Your task to perform on an android device: open chrome and create a bookmark for the current page Image 0: 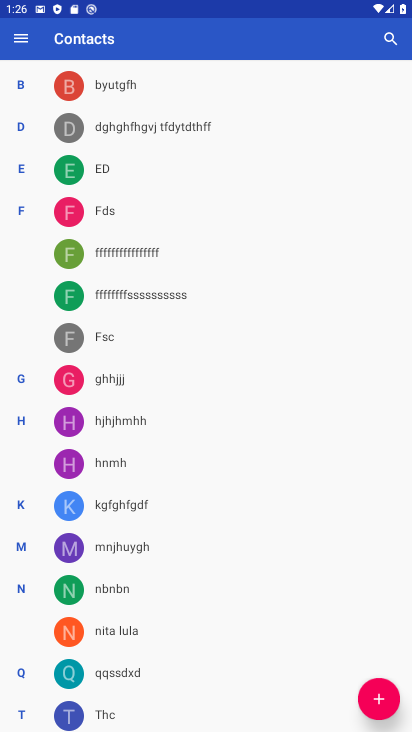
Step 0: press home button
Your task to perform on an android device: open chrome and create a bookmark for the current page Image 1: 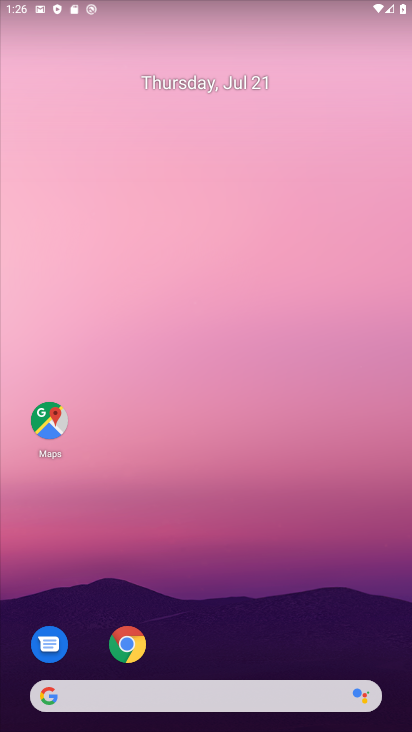
Step 1: click (120, 643)
Your task to perform on an android device: open chrome and create a bookmark for the current page Image 2: 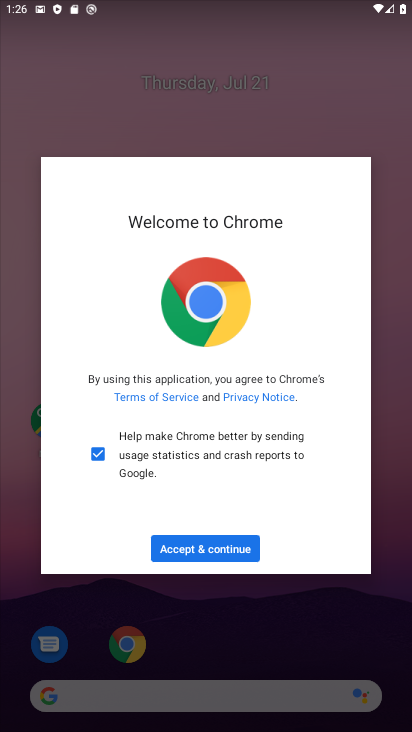
Step 2: click (190, 545)
Your task to perform on an android device: open chrome and create a bookmark for the current page Image 3: 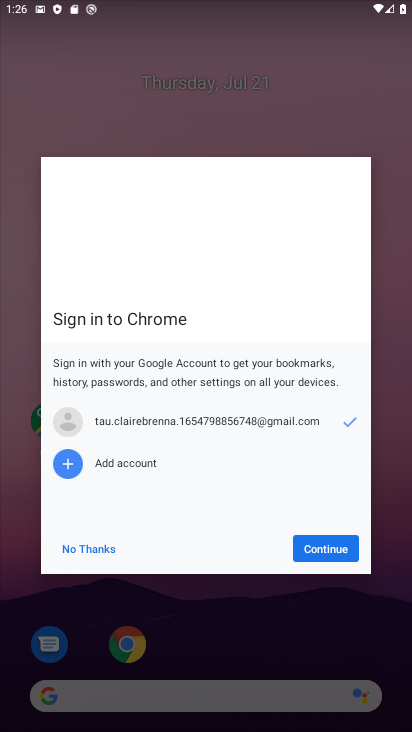
Step 3: click (306, 546)
Your task to perform on an android device: open chrome and create a bookmark for the current page Image 4: 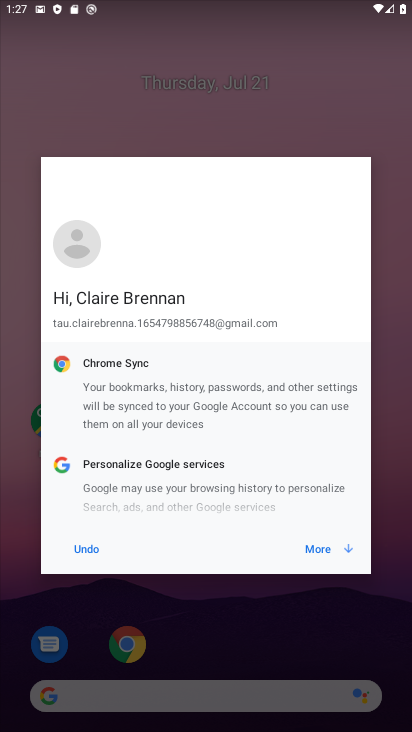
Step 4: click (322, 546)
Your task to perform on an android device: open chrome and create a bookmark for the current page Image 5: 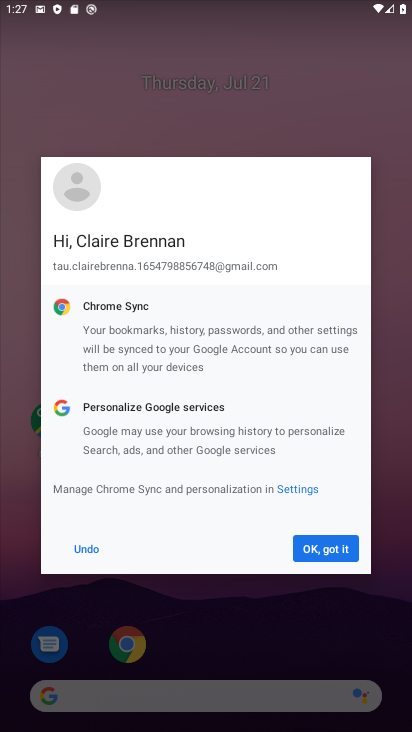
Step 5: click (322, 546)
Your task to perform on an android device: open chrome and create a bookmark for the current page Image 6: 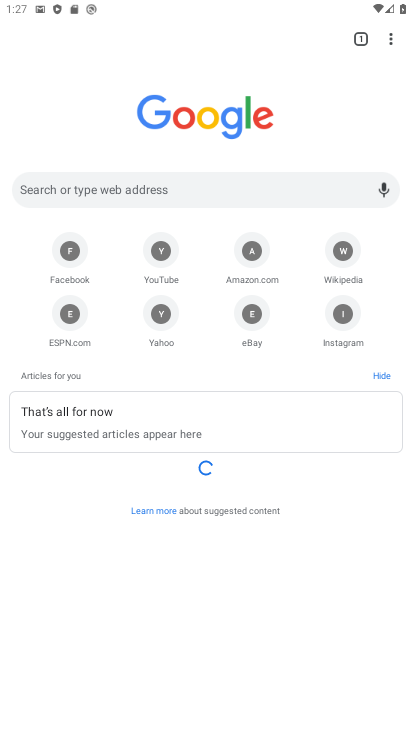
Step 6: click (381, 49)
Your task to perform on an android device: open chrome and create a bookmark for the current page Image 7: 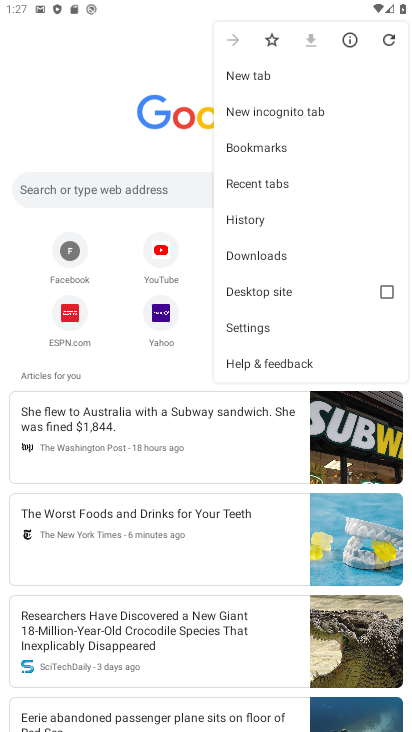
Step 7: click (272, 46)
Your task to perform on an android device: open chrome and create a bookmark for the current page Image 8: 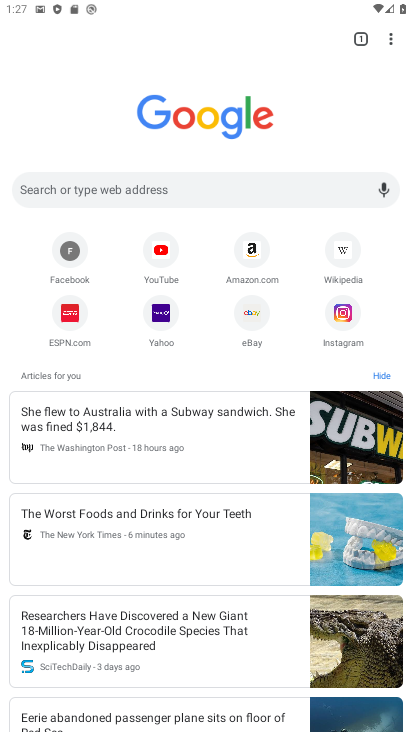
Step 8: task complete